Your task to perform on an android device: turn off data saver in the chrome app Image 0: 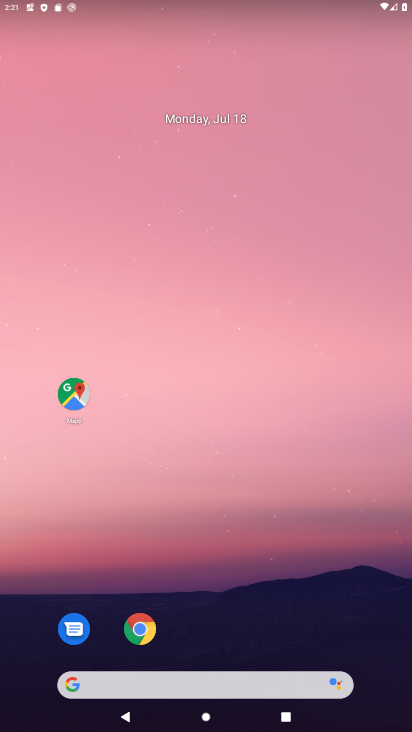
Step 0: click (149, 644)
Your task to perform on an android device: turn off data saver in the chrome app Image 1: 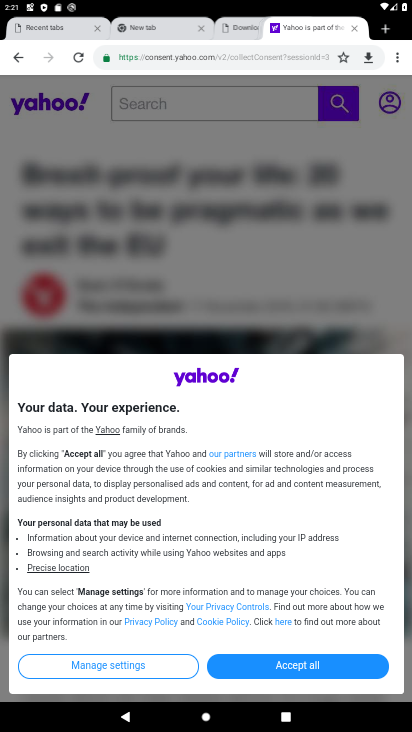
Step 1: click (396, 58)
Your task to perform on an android device: turn off data saver in the chrome app Image 2: 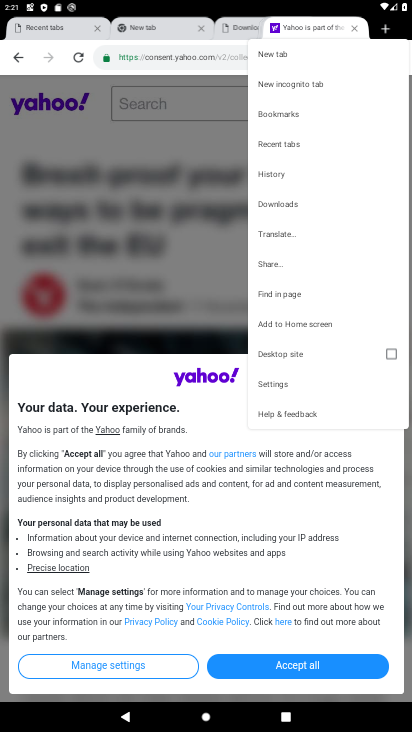
Step 2: click (287, 375)
Your task to perform on an android device: turn off data saver in the chrome app Image 3: 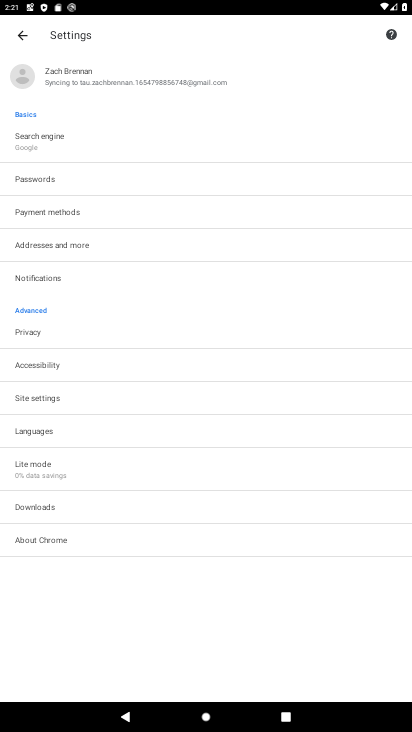
Step 3: click (93, 476)
Your task to perform on an android device: turn off data saver in the chrome app Image 4: 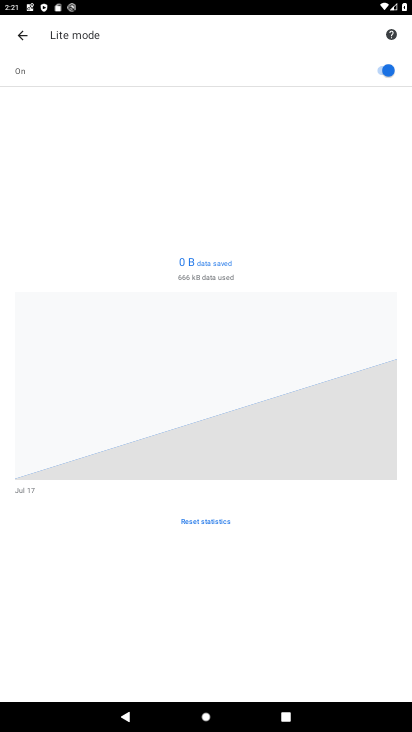
Step 4: click (376, 67)
Your task to perform on an android device: turn off data saver in the chrome app Image 5: 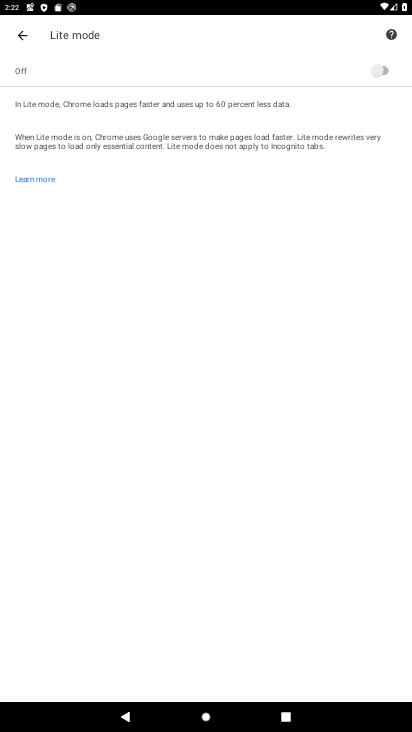
Step 5: task complete